Your task to perform on an android device: Open Chrome and go to settings Image 0: 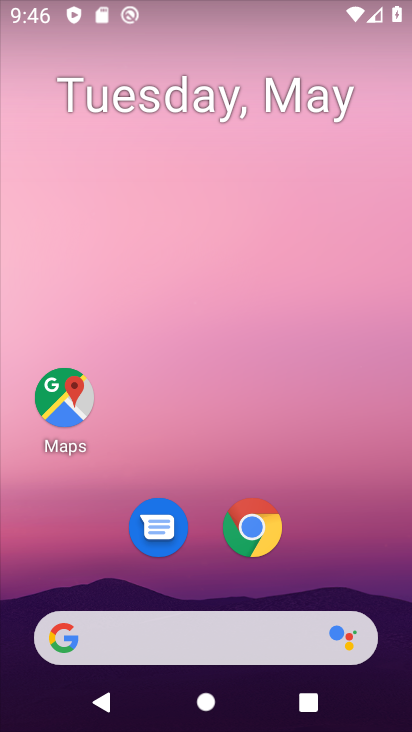
Step 0: click (252, 528)
Your task to perform on an android device: Open Chrome and go to settings Image 1: 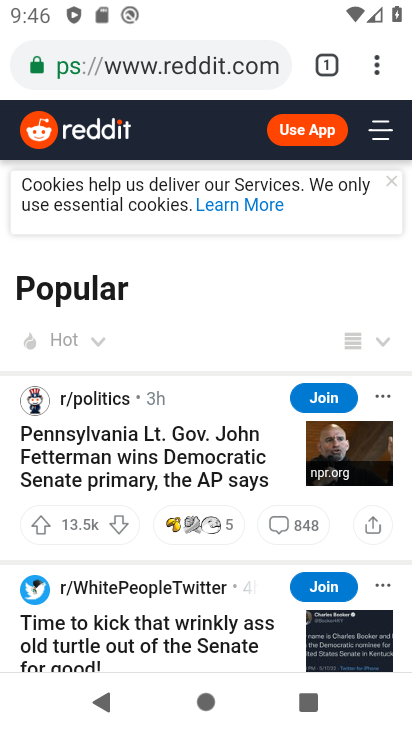
Step 1: click (377, 62)
Your task to perform on an android device: Open Chrome and go to settings Image 2: 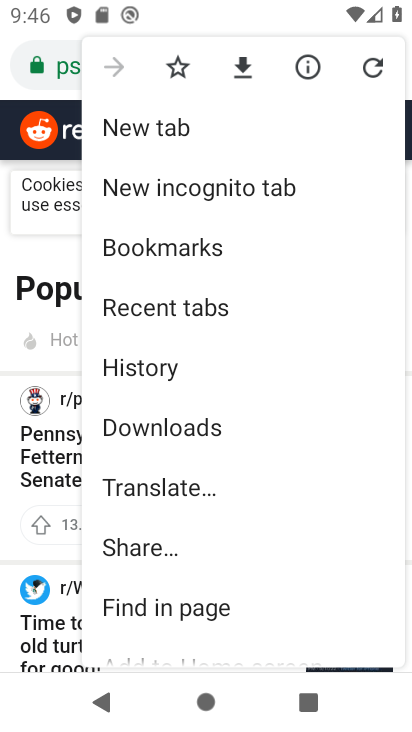
Step 2: drag from (183, 515) to (200, 452)
Your task to perform on an android device: Open Chrome and go to settings Image 3: 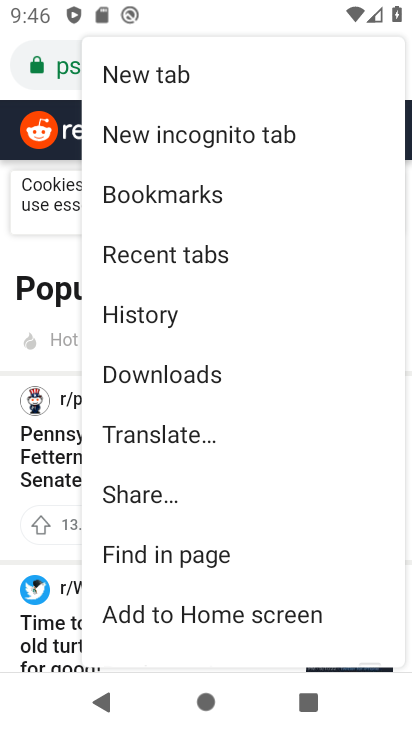
Step 3: drag from (158, 587) to (199, 496)
Your task to perform on an android device: Open Chrome and go to settings Image 4: 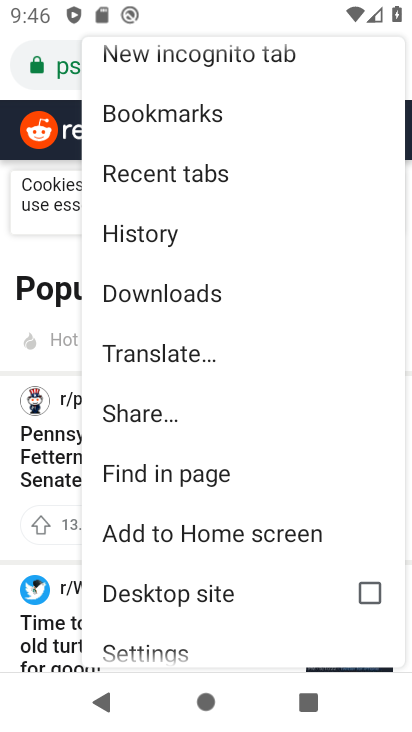
Step 4: drag from (177, 621) to (219, 484)
Your task to perform on an android device: Open Chrome and go to settings Image 5: 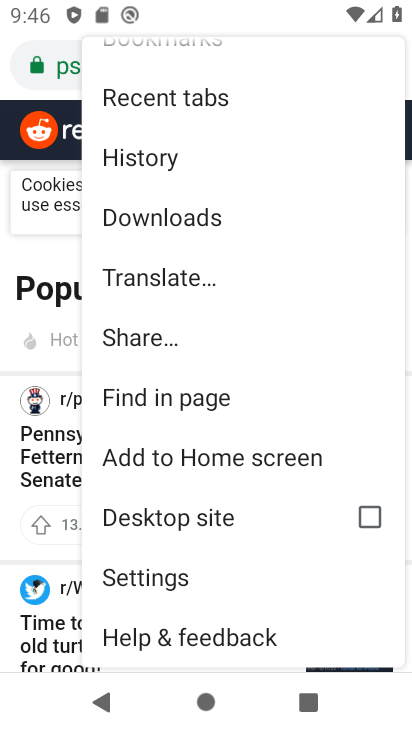
Step 5: click (164, 584)
Your task to perform on an android device: Open Chrome and go to settings Image 6: 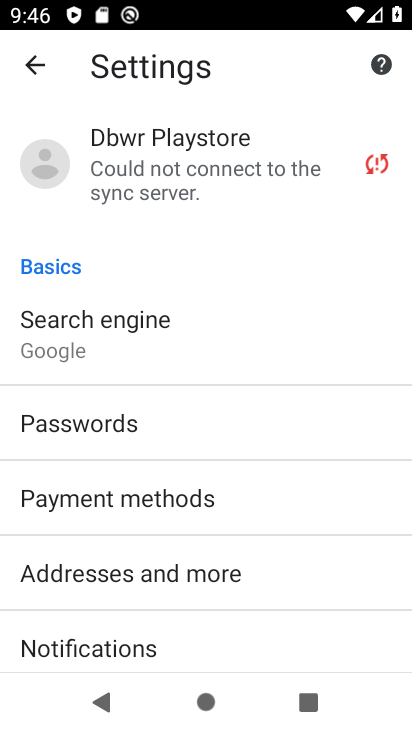
Step 6: task complete